Your task to perform on an android device: Open calendar and show me the fourth week of next month Image 0: 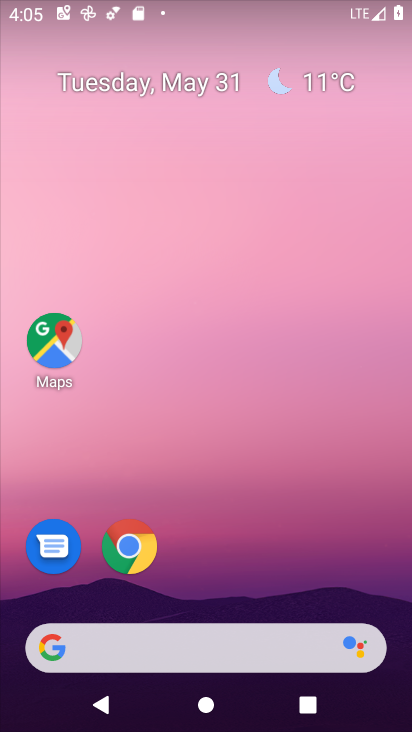
Step 0: drag from (328, 550) to (133, 9)
Your task to perform on an android device: Open calendar and show me the fourth week of next month Image 1: 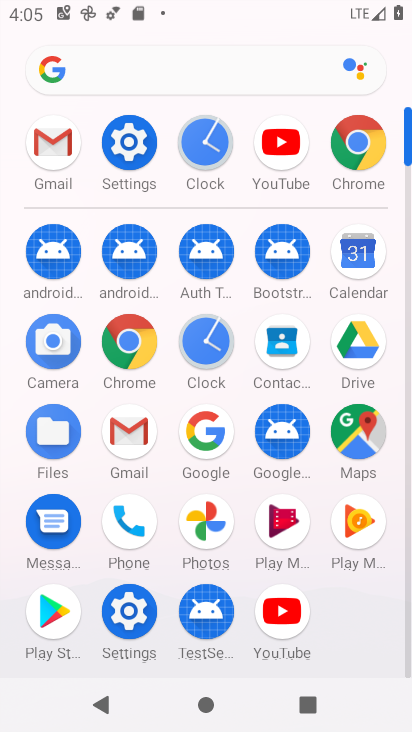
Step 1: click (375, 260)
Your task to perform on an android device: Open calendar and show me the fourth week of next month Image 2: 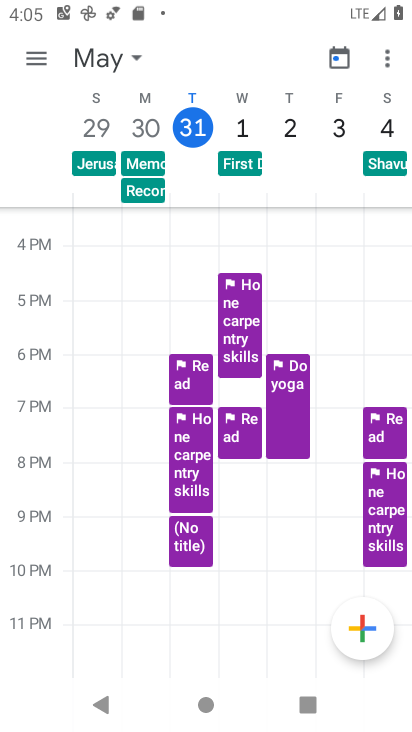
Step 2: click (114, 40)
Your task to perform on an android device: Open calendar and show me the fourth week of next month Image 3: 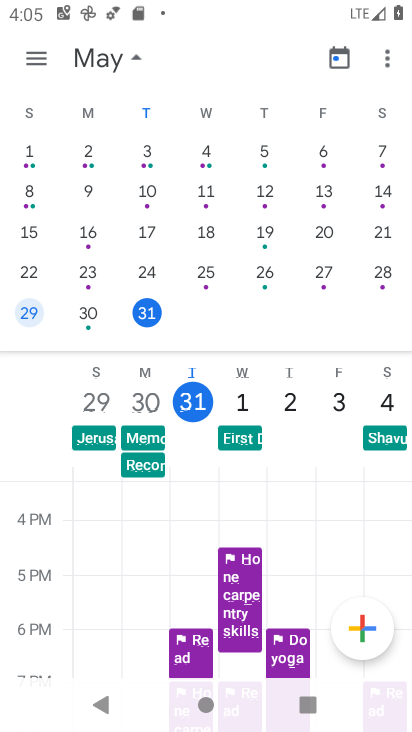
Step 3: drag from (341, 188) to (0, 329)
Your task to perform on an android device: Open calendar and show me the fourth week of next month Image 4: 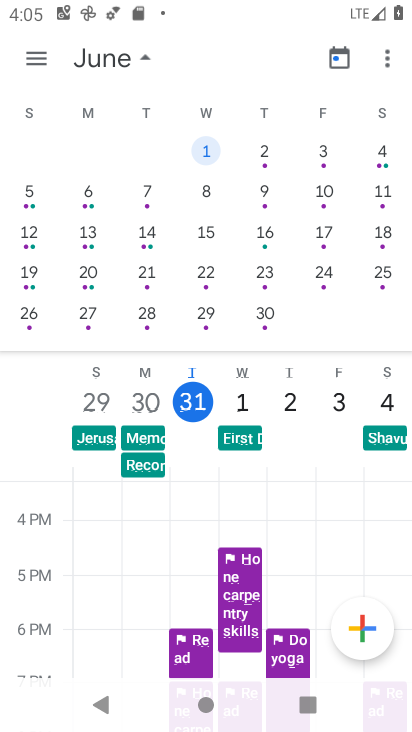
Step 4: click (28, 278)
Your task to perform on an android device: Open calendar and show me the fourth week of next month Image 5: 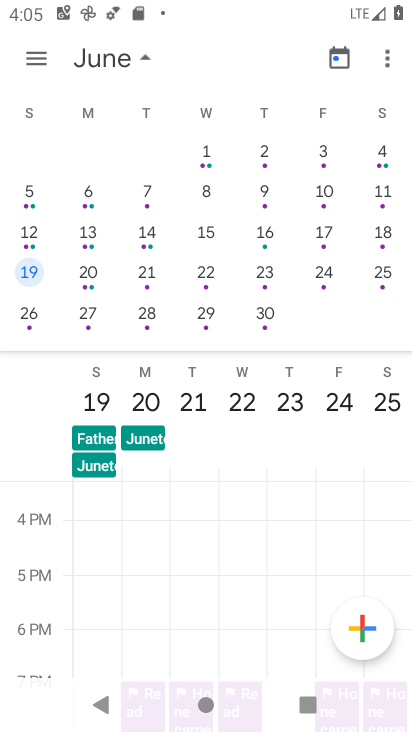
Step 5: task complete